Your task to perform on an android device: find photos in the google photos app Image 0: 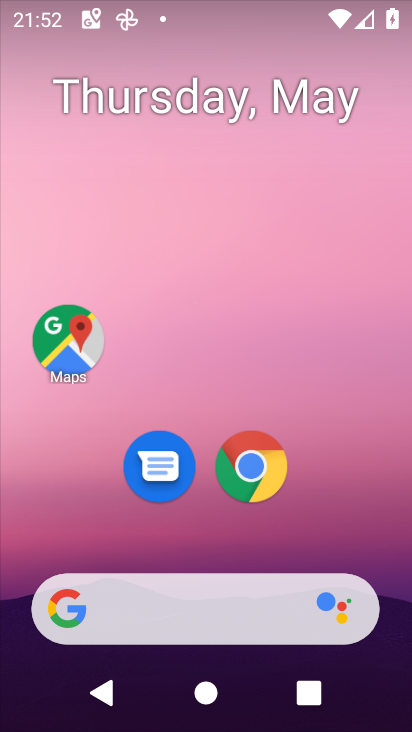
Step 0: drag from (325, 528) to (318, 16)
Your task to perform on an android device: find photos in the google photos app Image 1: 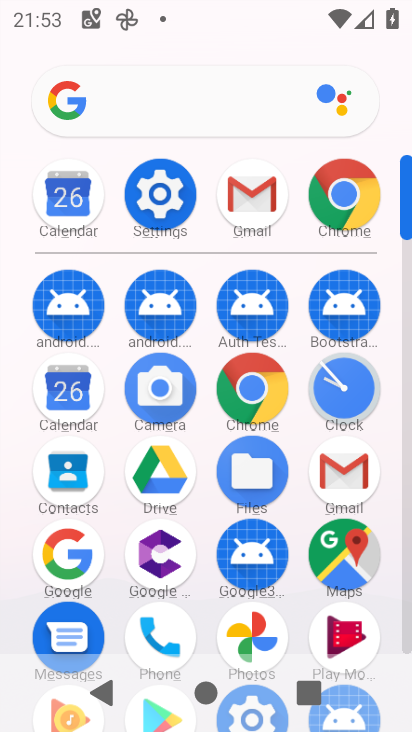
Step 1: click (264, 634)
Your task to perform on an android device: find photos in the google photos app Image 2: 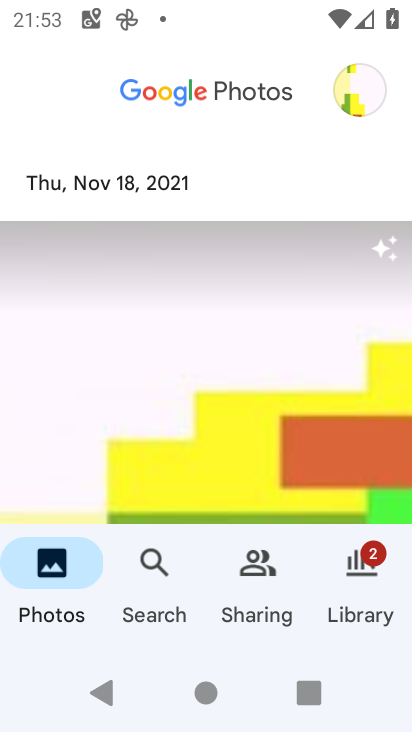
Step 2: click (353, 565)
Your task to perform on an android device: find photos in the google photos app Image 3: 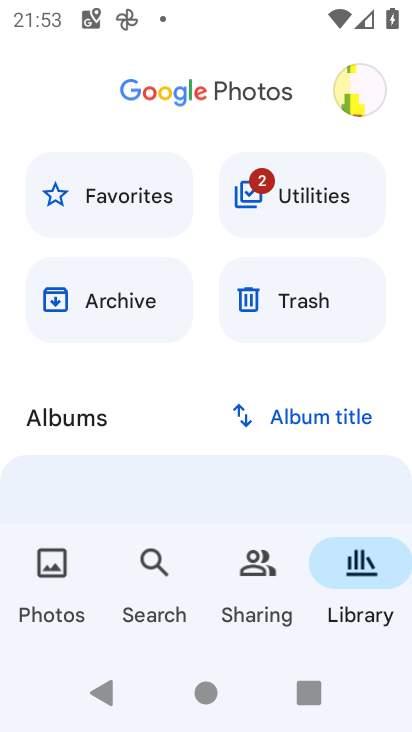
Step 3: click (104, 299)
Your task to perform on an android device: find photos in the google photos app Image 4: 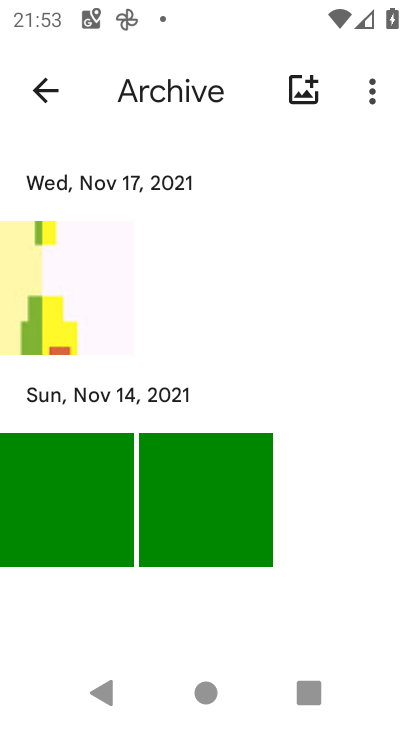
Step 4: task complete